Your task to perform on an android device: open app "Speedtest by Ookla" (install if not already installed) and go to login screen Image 0: 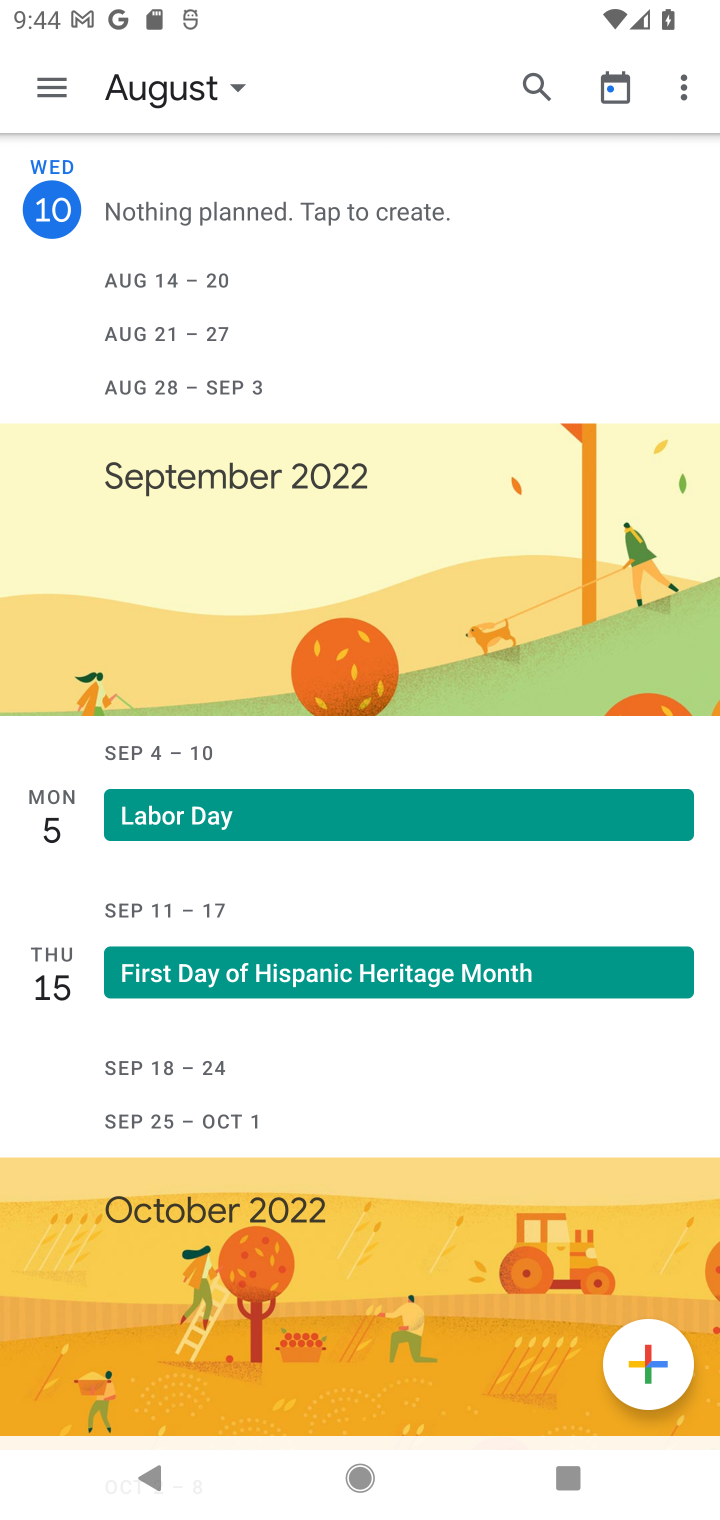
Step 0: press home button
Your task to perform on an android device: open app "Speedtest by Ookla" (install if not already installed) and go to login screen Image 1: 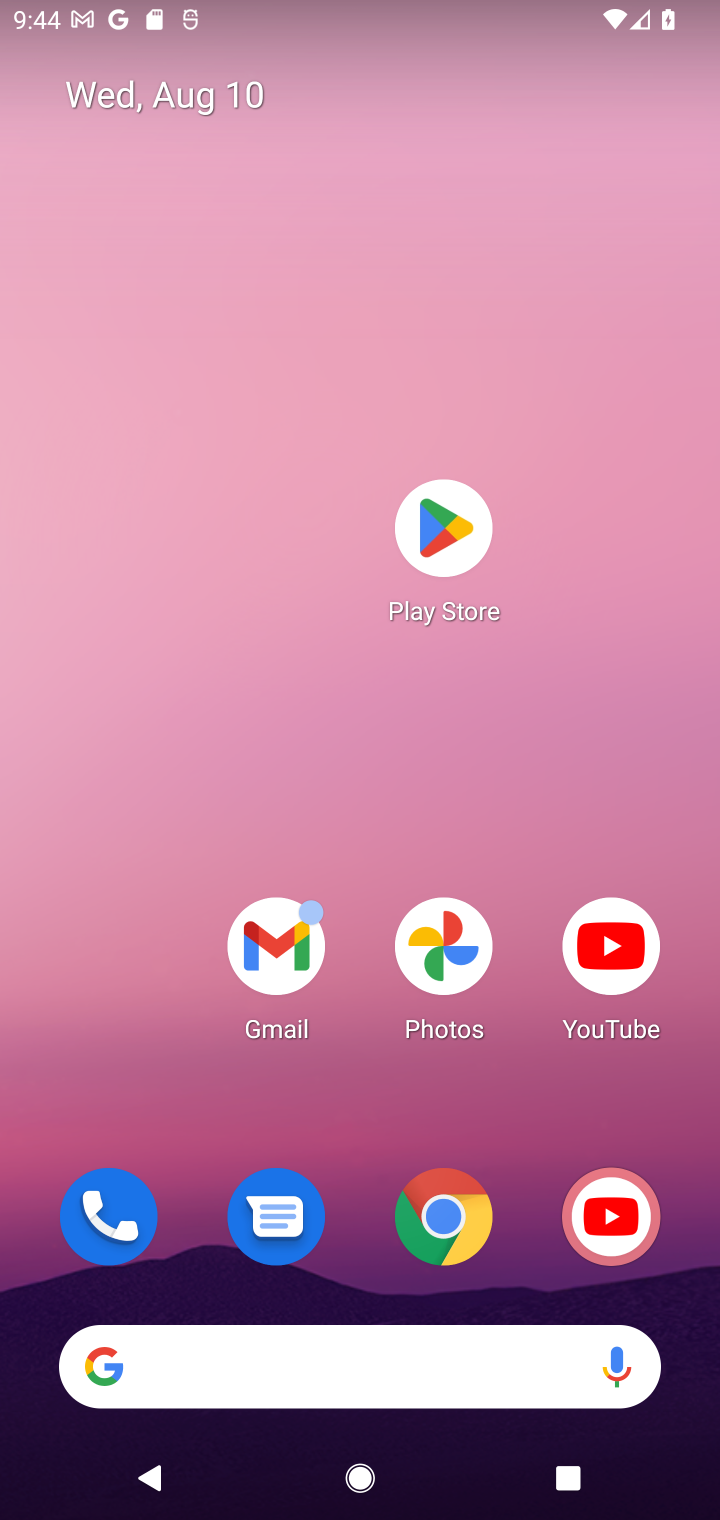
Step 1: click (433, 523)
Your task to perform on an android device: open app "Speedtest by Ookla" (install if not already installed) and go to login screen Image 2: 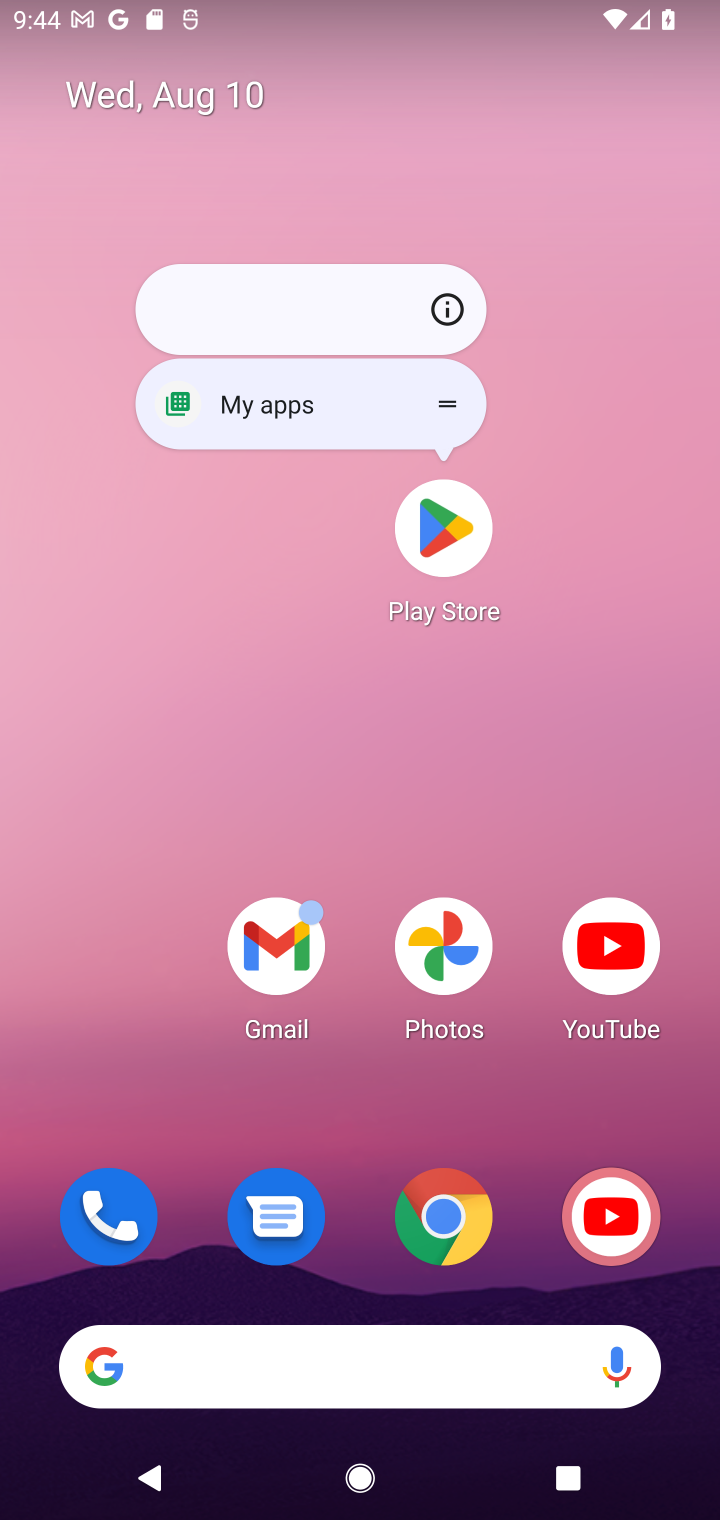
Step 2: click (433, 523)
Your task to perform on an android device: open app "Speedtest by Ookla" (install if not already installed) and go to login screen Image 3: 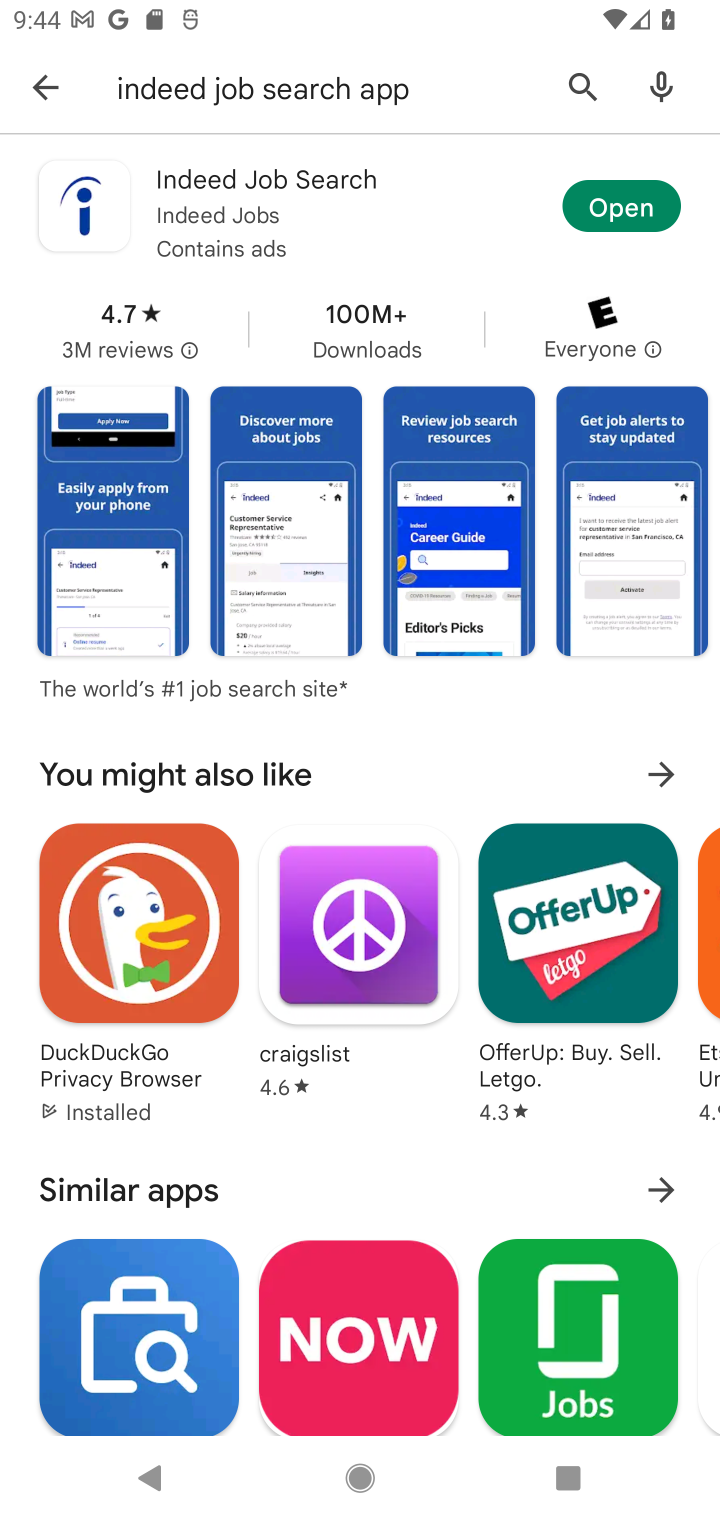
Step 3: click (569, 66)
Your task to perform on an android device: open app "Speedtest by Ookla" (install if not already installed) and go to login screen Image 4: 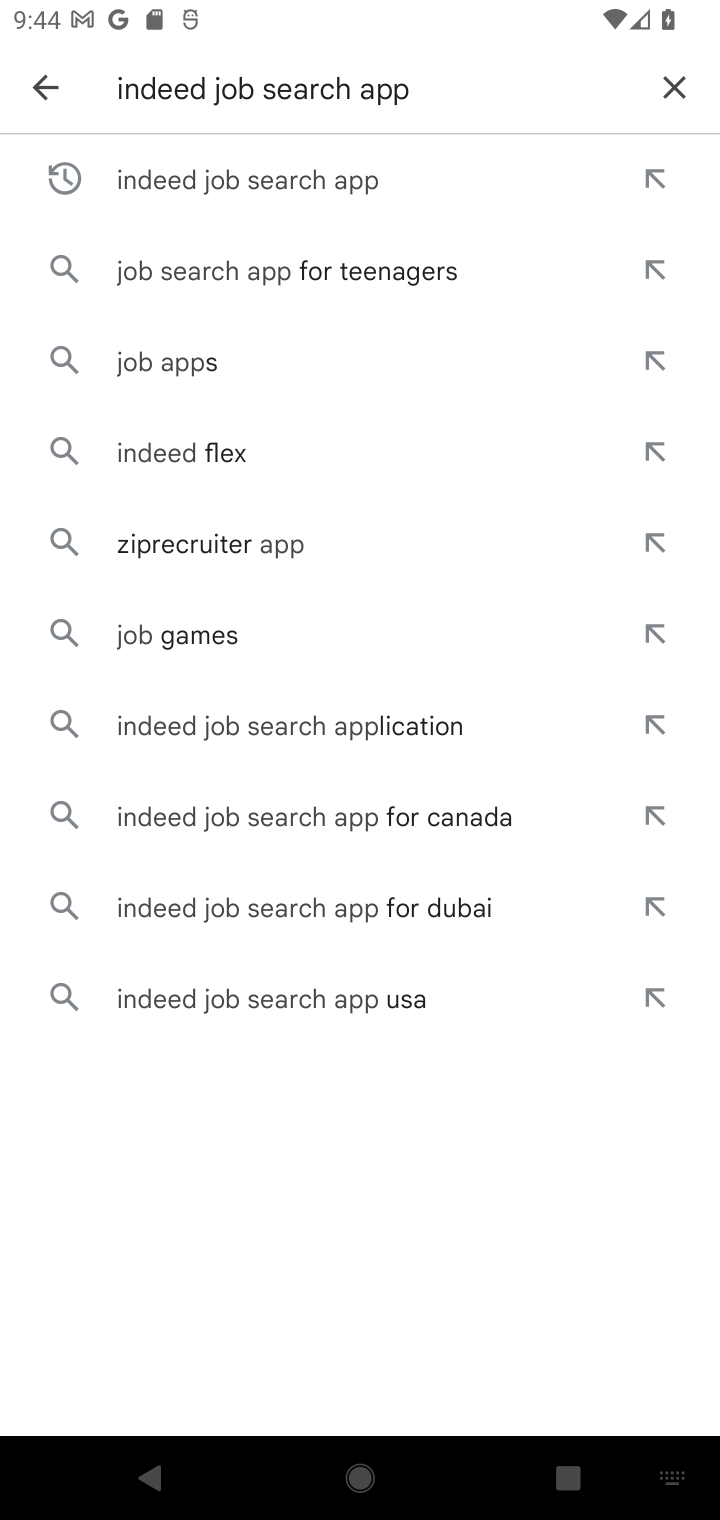
Step 4: click (660, 87)
Your task to perform on an android device: open app "Speedtest by Ookla" (install if not already installed) and go to login screen Image 5: 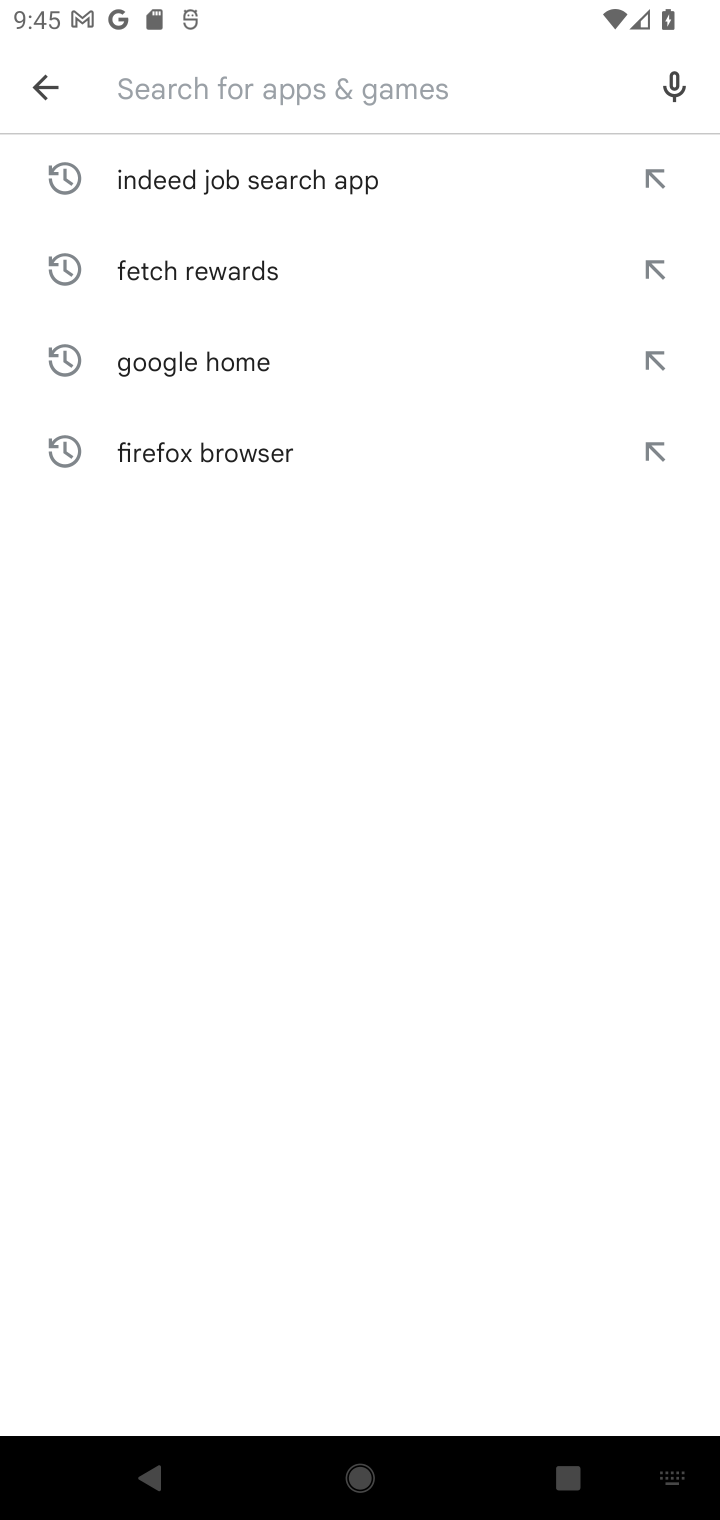
Step 5: type "Speedtest by Ookla"
Your task to perform on an android device: open app "Speedtest by Ookla" (install if not already installed) and go to login screen Image 6: 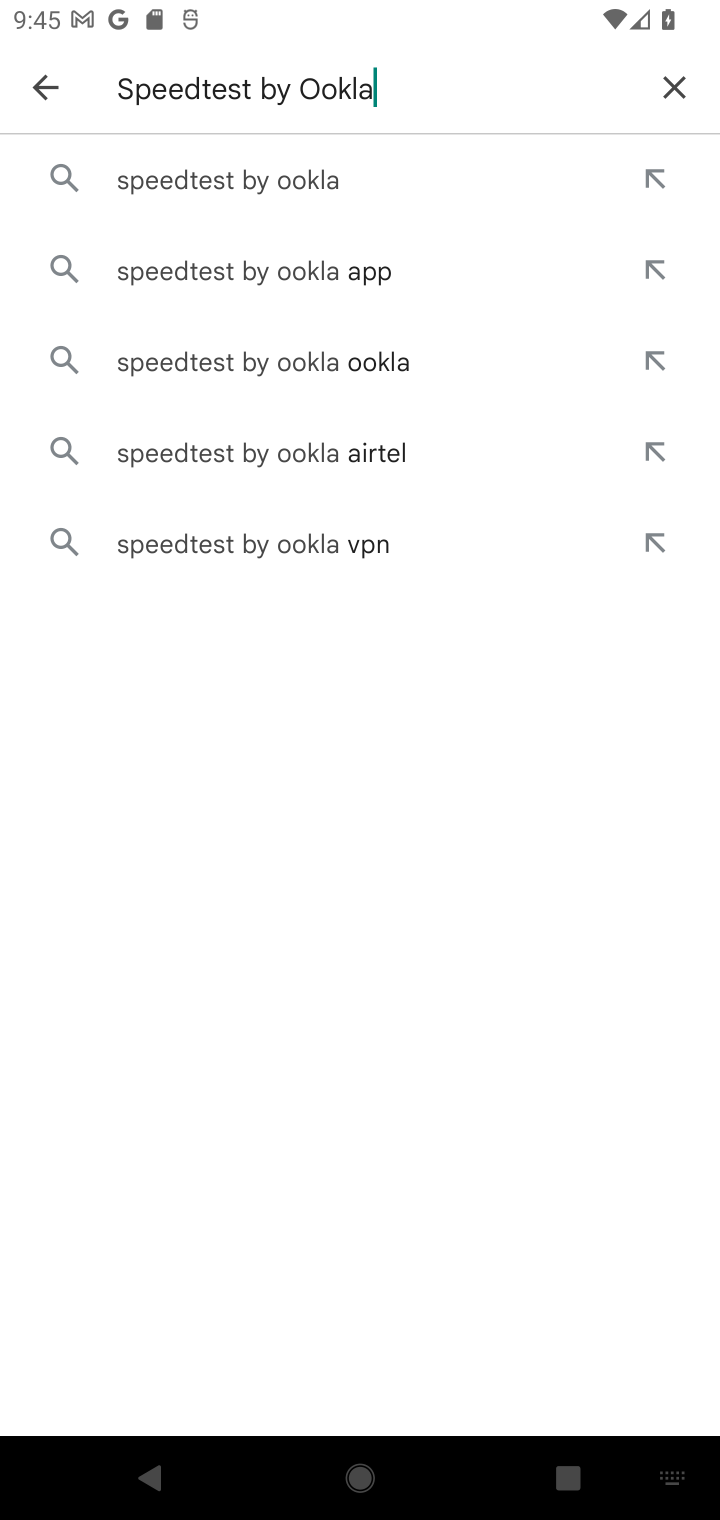
Step 6: click (312, 186)
Your task to perform on an android device: open app "Speedtest by Ookla" (install if not already installed) and go to login screen Image 7: 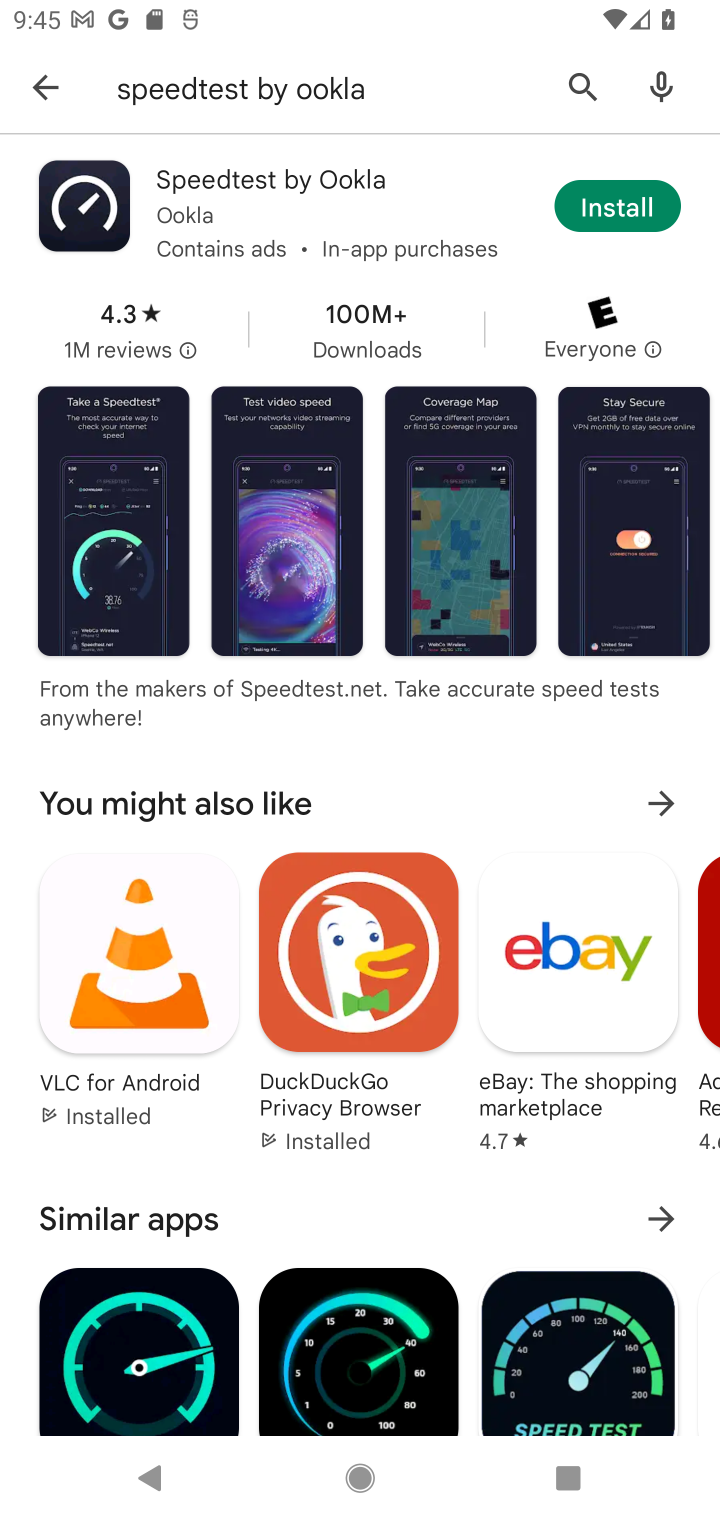
Step 7: click (601, 199)
Your task to perform on an android device: open app "Speedtest by Ookla" (install if not already installed) and go to login screen Image 8: 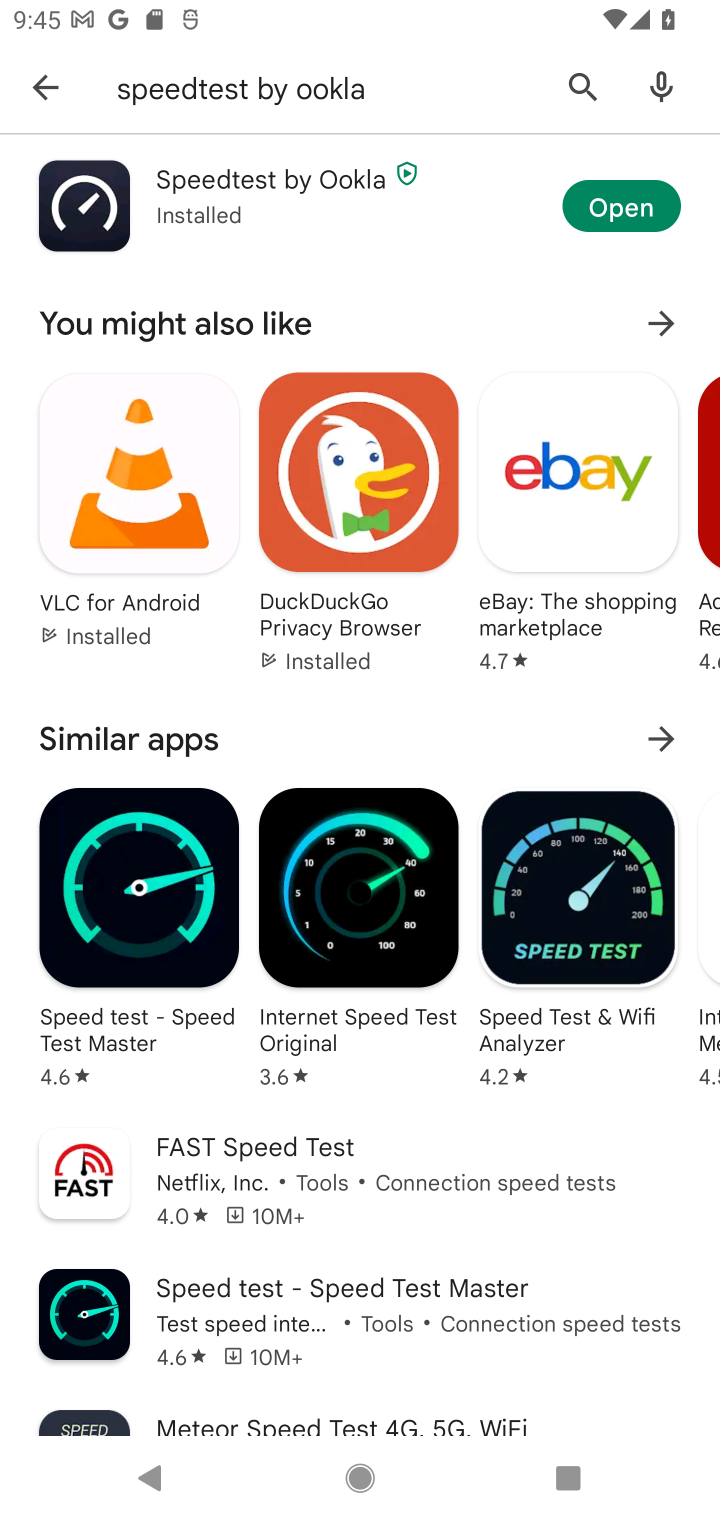
Step 8: click (649, 205)
Your task to perform on an android device: open app "Speedtest by Ookla" (install if not already installed) and go to login screen Image 9: 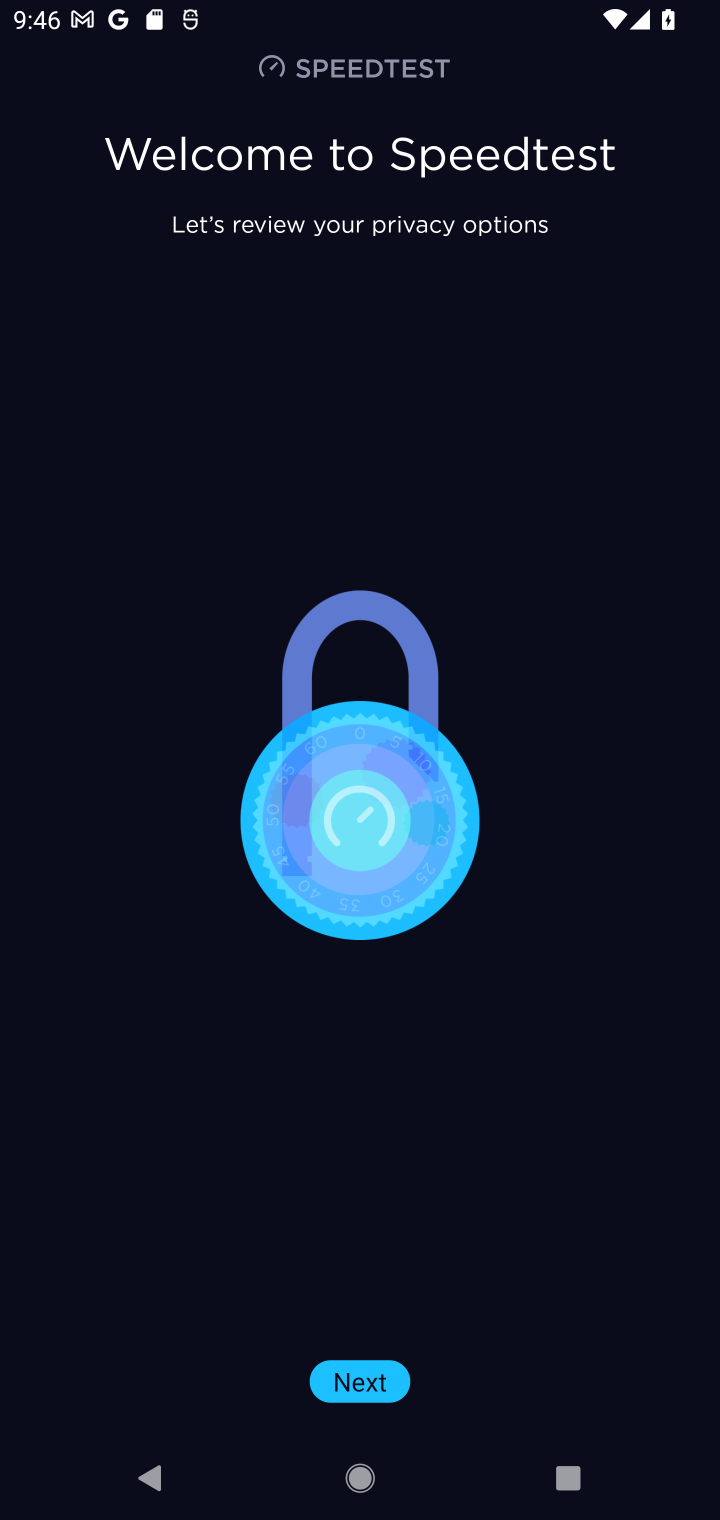
Step 9: task complete